Your task to perform on an android device: toggle notifications settings in the gmail app Image 0: 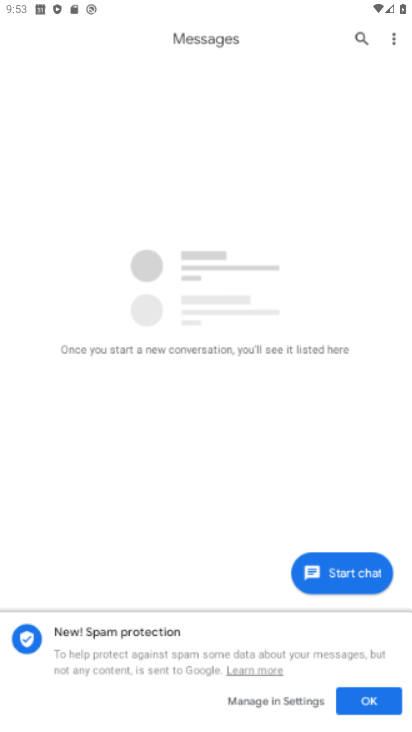
Step 0: drag from (187, 660) to (204, 184)
Your task to perform on an android device: toggle notifications settings in the gmail app Image 1: 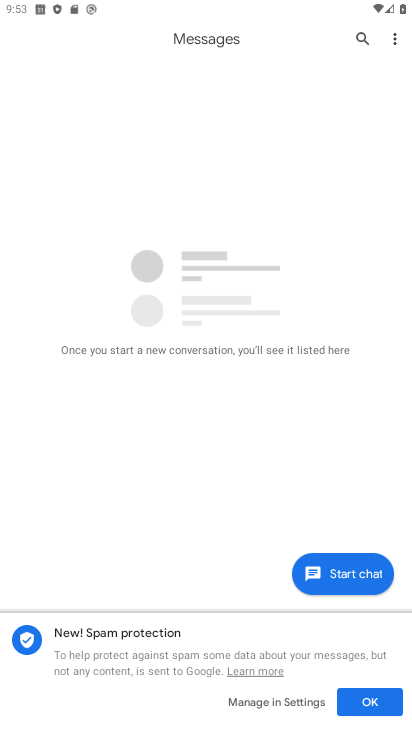
Step 1: drag from (221, 361) to (224, 241)
Your task to perform on an android device: toggle notifications settings in the gmail app Image 2: 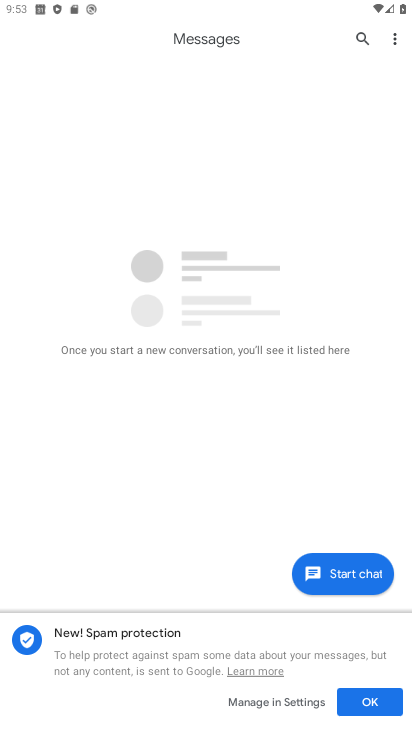
Step 2: press home button
Your task to perform on an android device: toggle notifications settings in the gmail app Image 3: 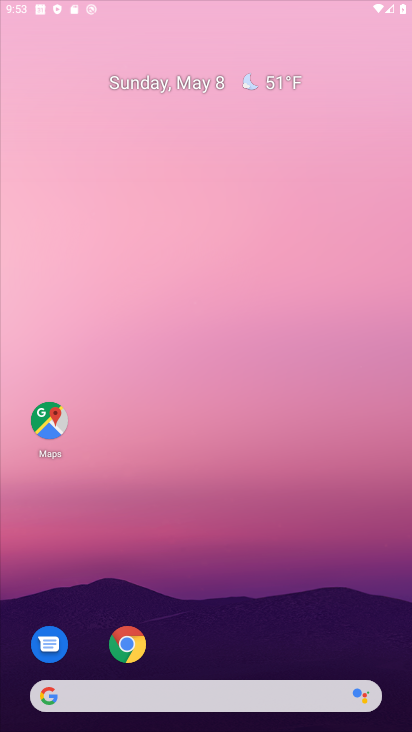
Step 3: drag from (182, 592) to (200, 179)
Your task to perform on an android device: toggle notifications settings in the gmail app Image 4: 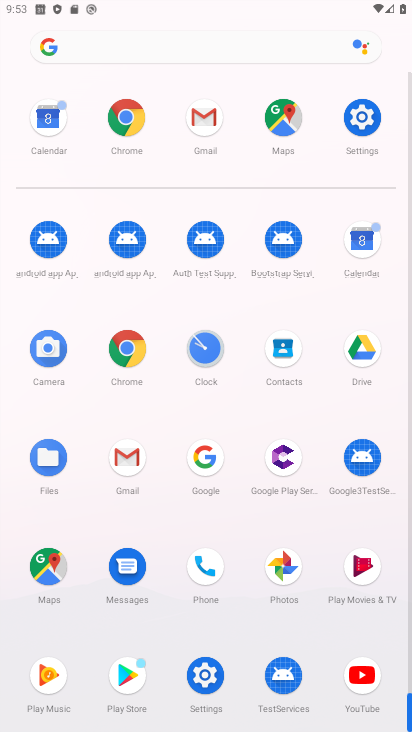
Step 4: click (210, 118)
Your task to perform on an android device: toggle notifications settings in the gmail app Image 5: 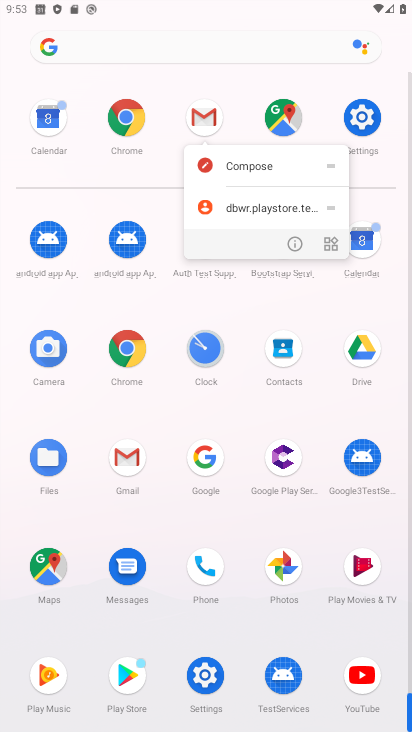
Step 5: click (306, 242)
Your task to perform on an android device: toggle notifications settings in the gmail app Image 6: 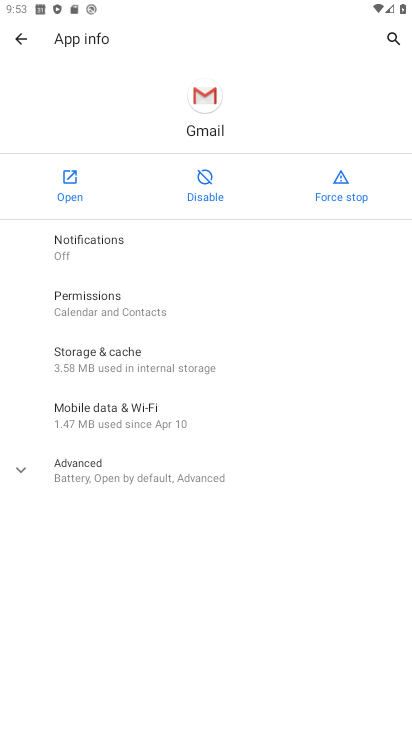
Step 6: click (71, 180)
Your task to perform on an android device: toggle notifications settings in the gmail app Image 7: 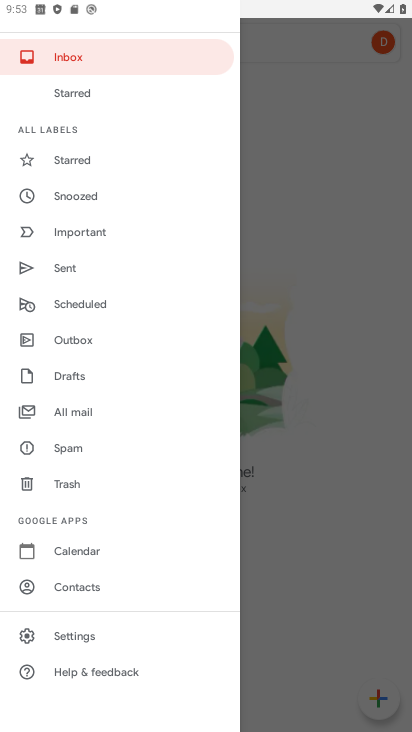
Step 7: click (82, 629)
Your task to perform on an android device: toggle notifications settings in the gmail app Image 8: 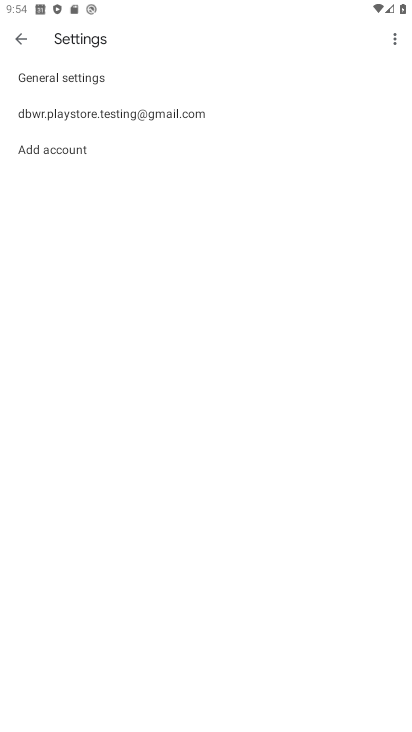
Step 8: click (195, 100)
Your task to perform on an android device: toggle notifications settings in the gmail app Image 9: 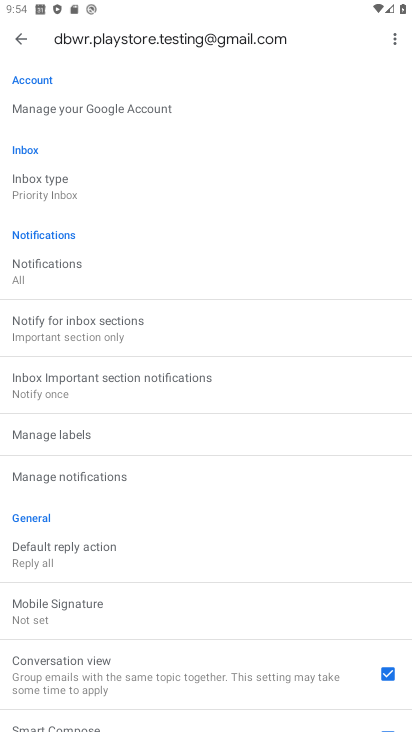
Step 9: click (98, 483)
Your task to perform on an android device: toggle notifications settings in the gmail app Image 10: 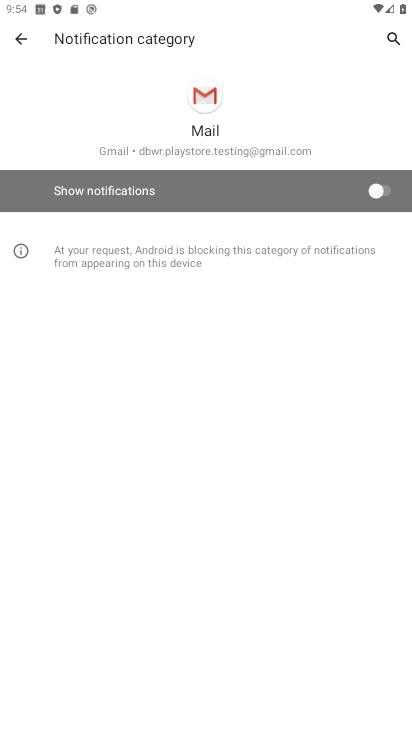
Step 10: task complete